Your task to perform on an android device: Show me popular games on the Play Store Image 0: 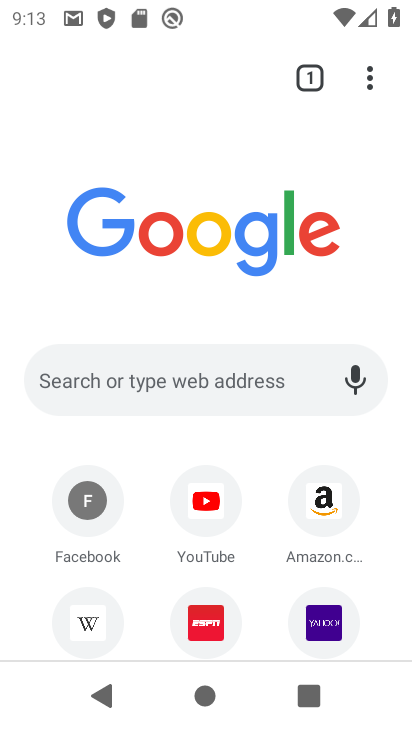
Step 0: press home button
Your task to perform on an android device: Show me popular games on the Play Store Image 1: 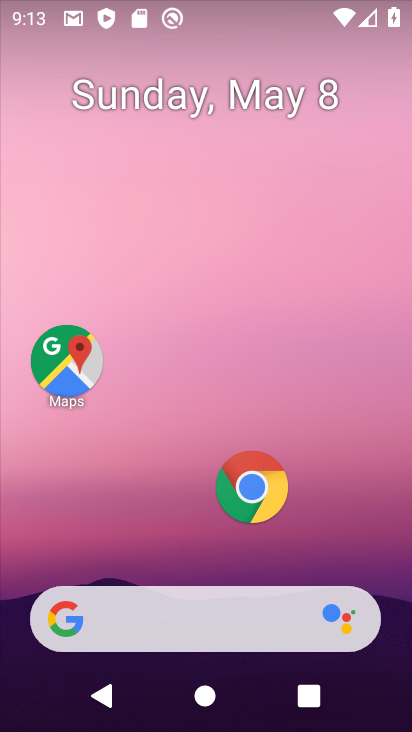
Step 1: drag from (151, 512) to (237, 43)
Your task to perform on an android device: Show me popular games on the Play Store Image 2: 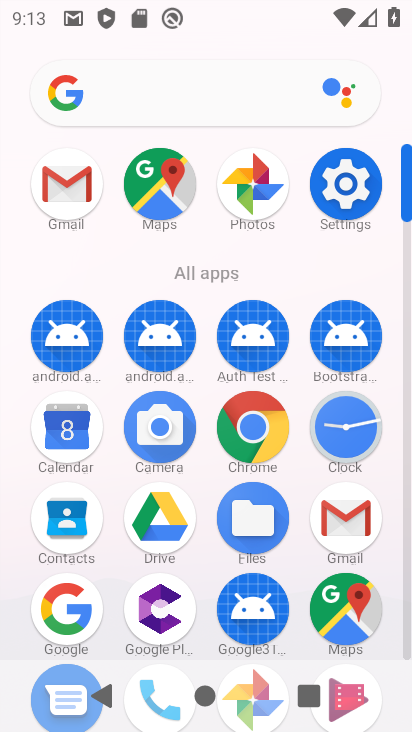
Step 2: drag from (208, 579) to (270, 126)
Your task to perform on an android device: Show me popular games on the Play Store Image 3: 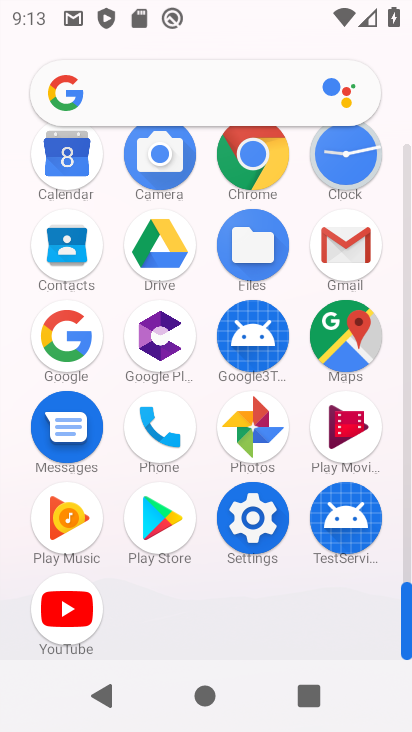
Step 3: click (155, 501)
Your task to perform on an android device: Show me popular games on the Play Store Image 4: 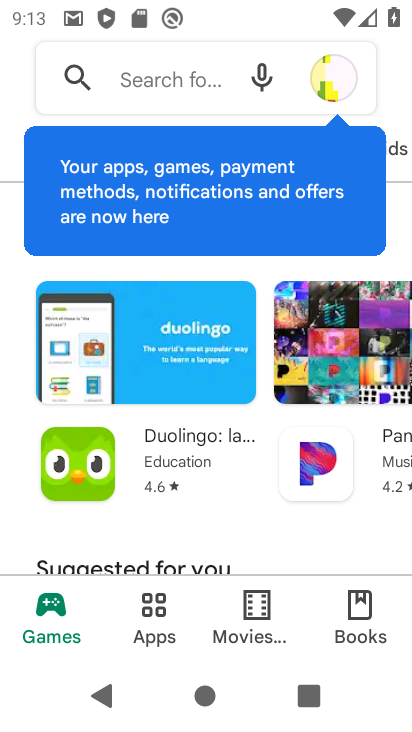
Step 4: drag from (184, 466) to (250, 177)
Your task to perform on an android device: Show me popular games on the Play Store Image 5: 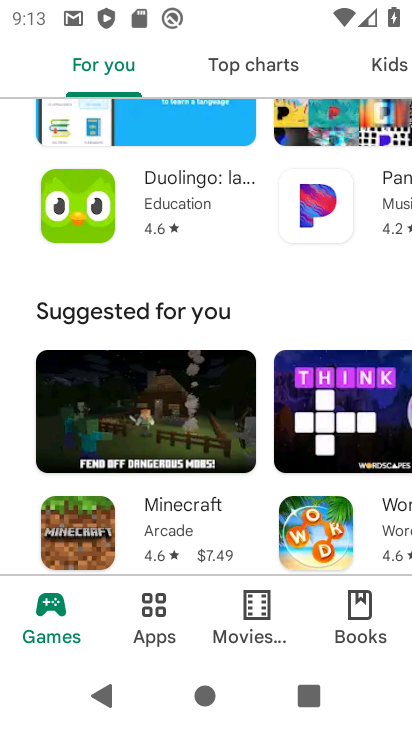
Step 5: drag from (231, 480) to (235, 140)
Your task to perform on an android device: Show me popular games on the Play Store Image 6: 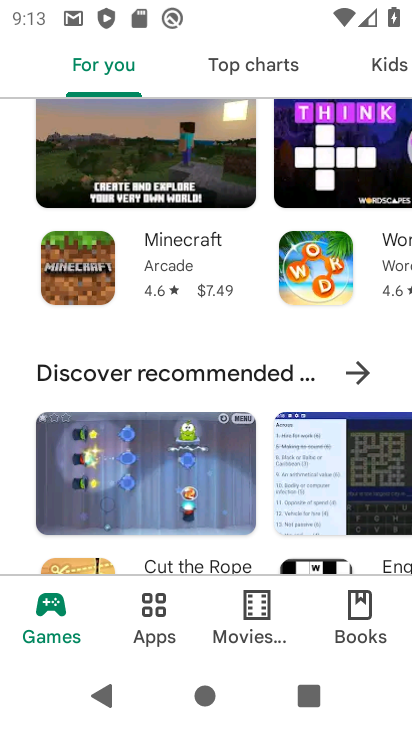
Step 6: drag from (227, 556) to (282, 197)
Your task to perform on an android device: Show me popular games on the Play Store Image 7: 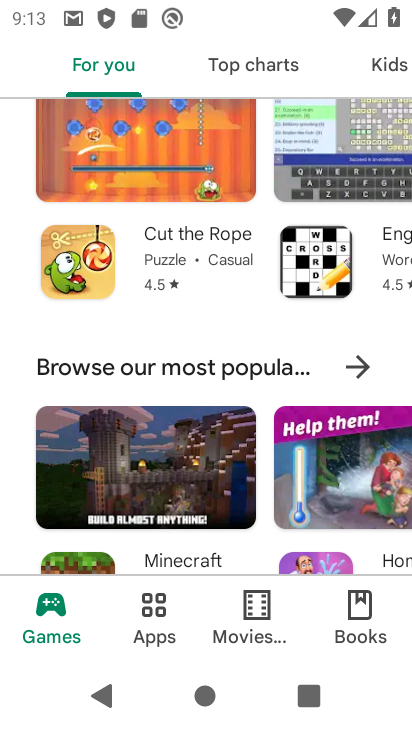
Step 7: click (367, 366)
Your task to perform on an android device: Show me popular games on the Play Store Image 8: 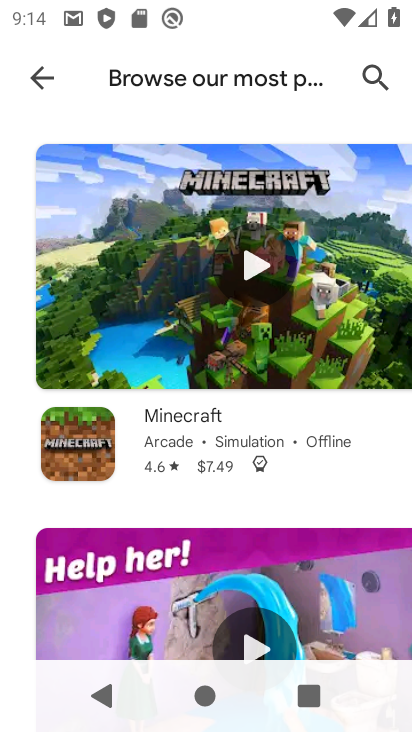
Step 8: task complete